Your task to perform on an android device: Open Google Chrome and open the bookmarks view Image 0: 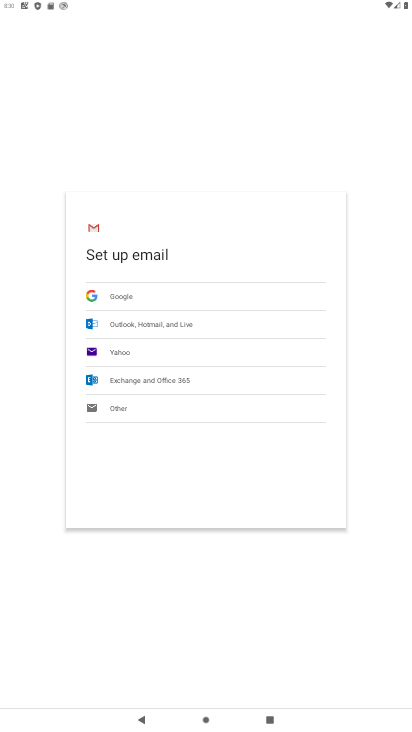
Step 0: press home button
Your task to perform on an android device: Open Google Chrome and open the bookmarks view Image 1: 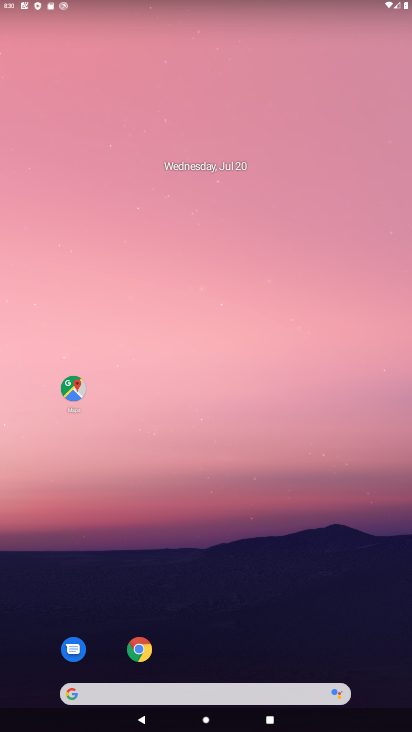
Step 1: click (135, 656)
Your task to perform on an android device: Open Google Chrome and open the bookmarks view Image 2: 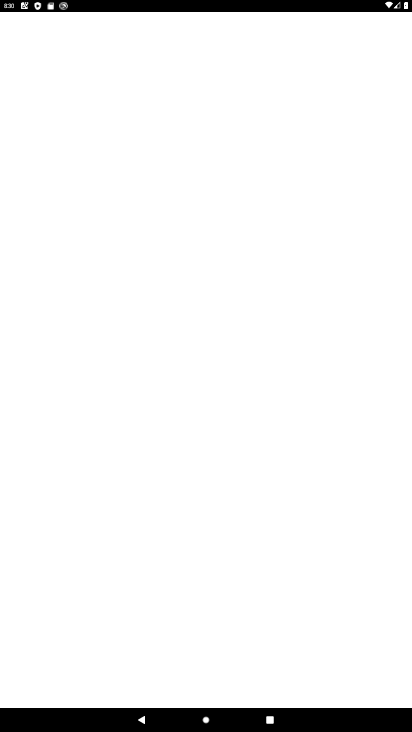
Step 2: task complete